Your task to perform on an android device: Clear the shopping cart on bestbuy. Add dell alienware to the cart on bestbuy, then select checkout. Image 0: 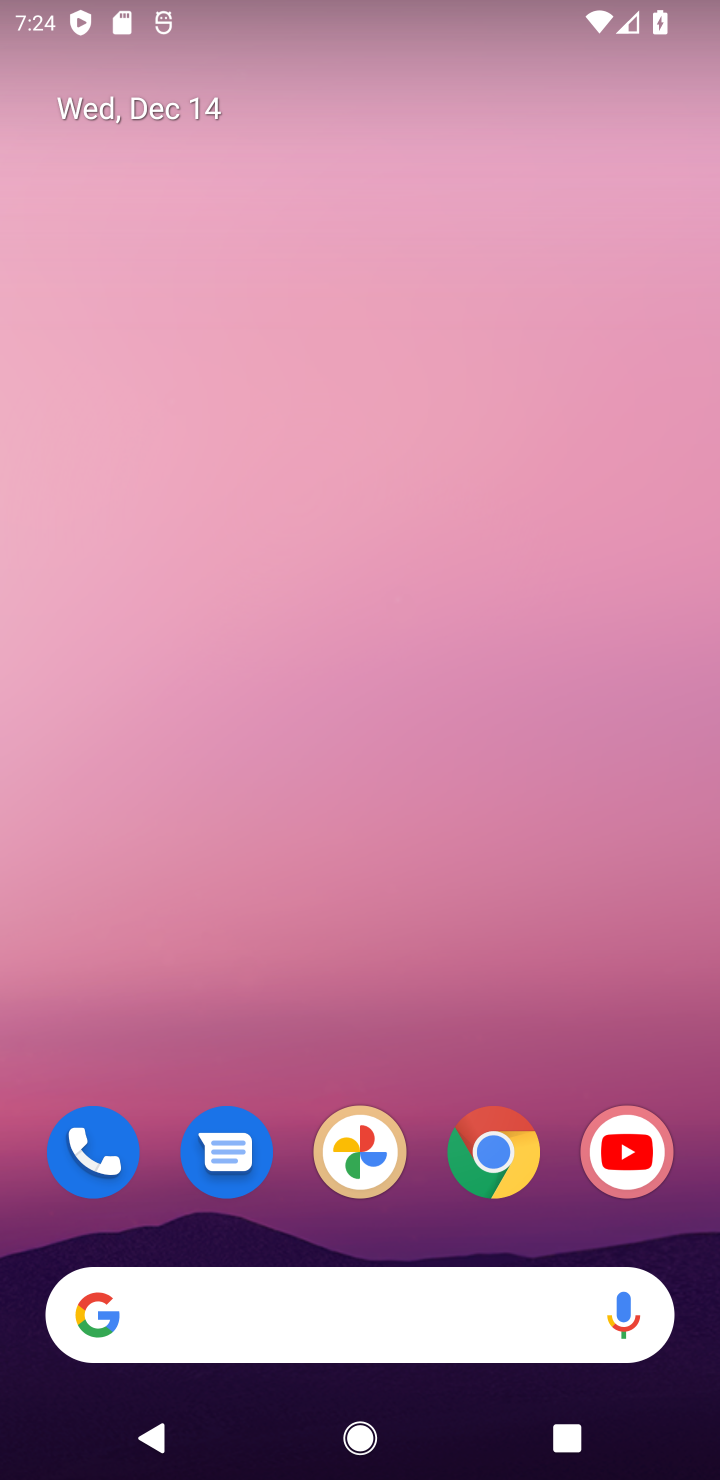
Step 0: click (511, 1163)
Your task to perform on an android device: Clear the shopping cart on bestbuy. Add dell alienware to the cart on bestbuy, then select checkout. Image 1: 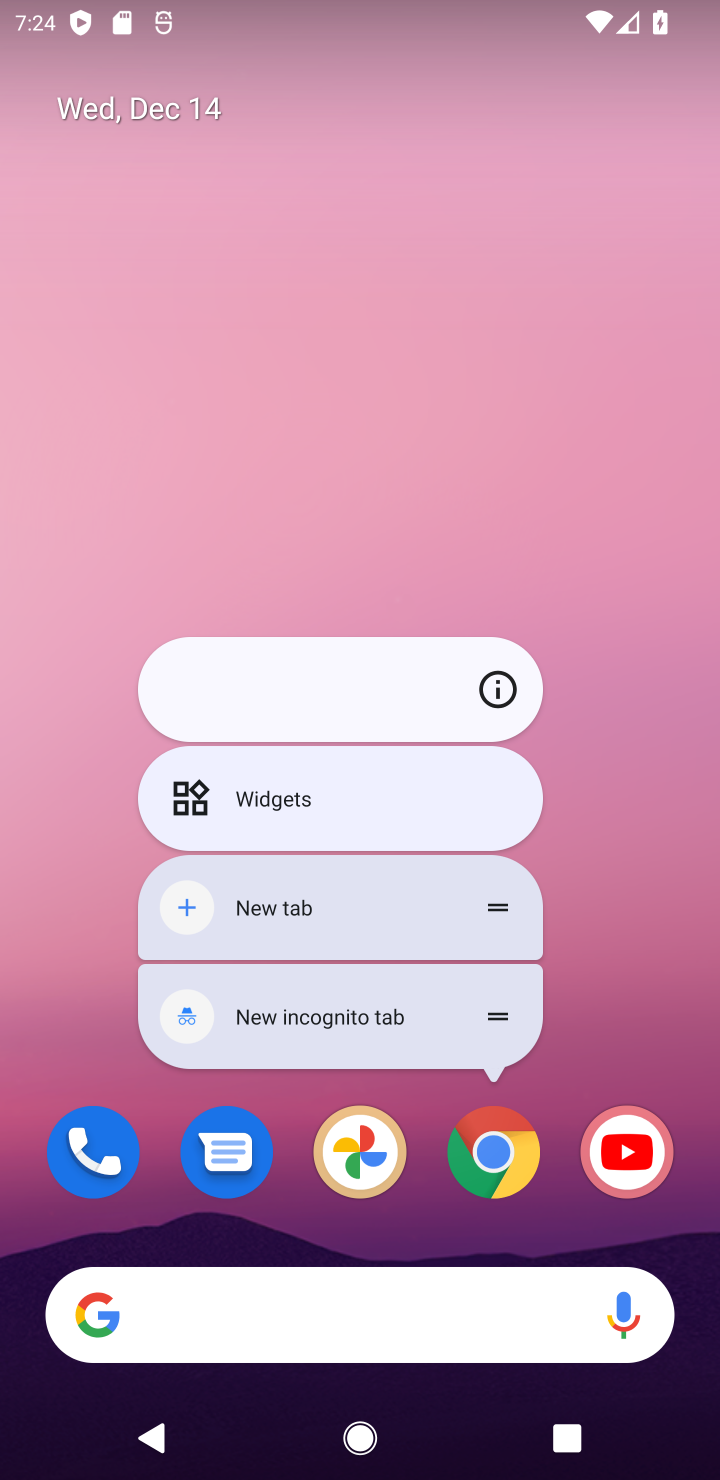
Step 1: click (511, 1163)
Your task to perform on an android device: Clear the shopping cart on bestbuy. Add dell alienware to the cart on bestbuy, then select checkout. Image 2: 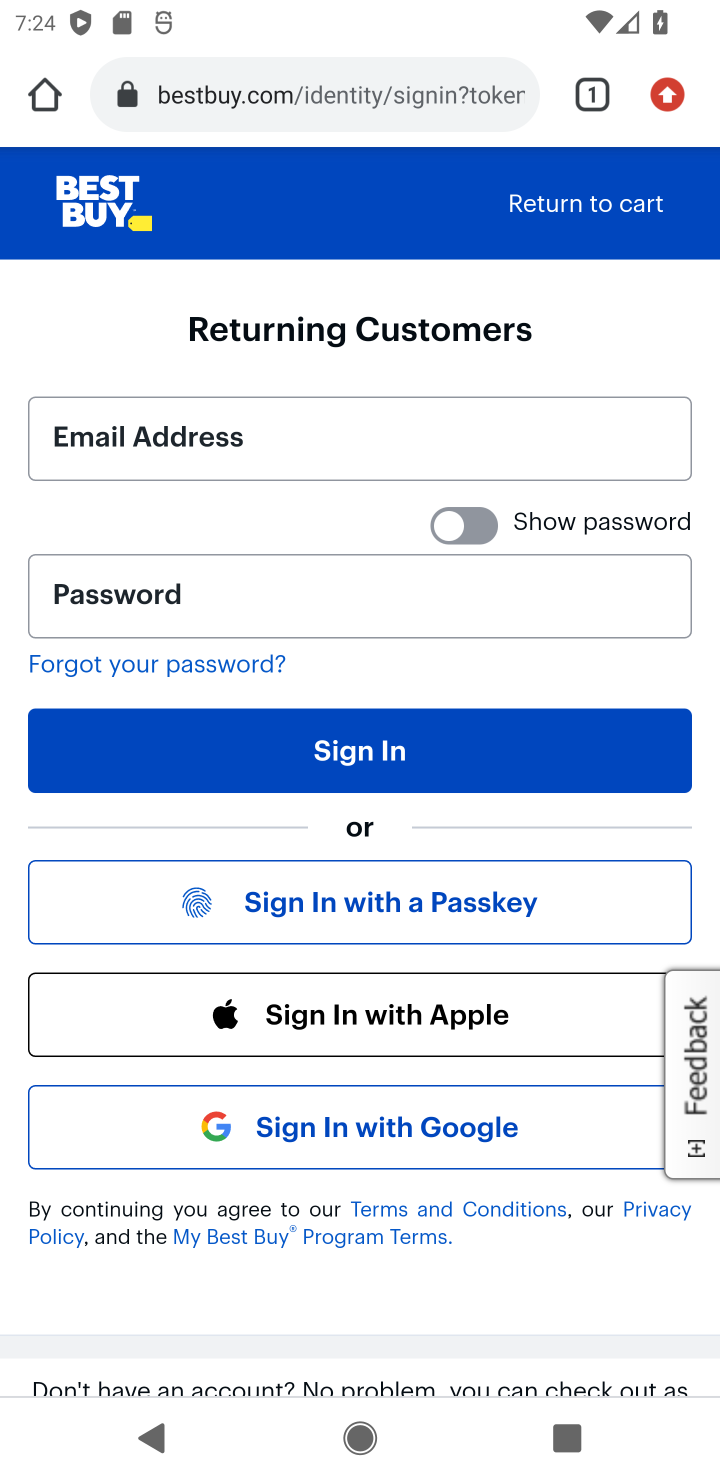
Step 2: click (591, 206)
Your task to perform on an android device: Clear the shopping cart on bestbuy. Add dell alienware to the cart on bestbuy, then select checkout. Image 3: 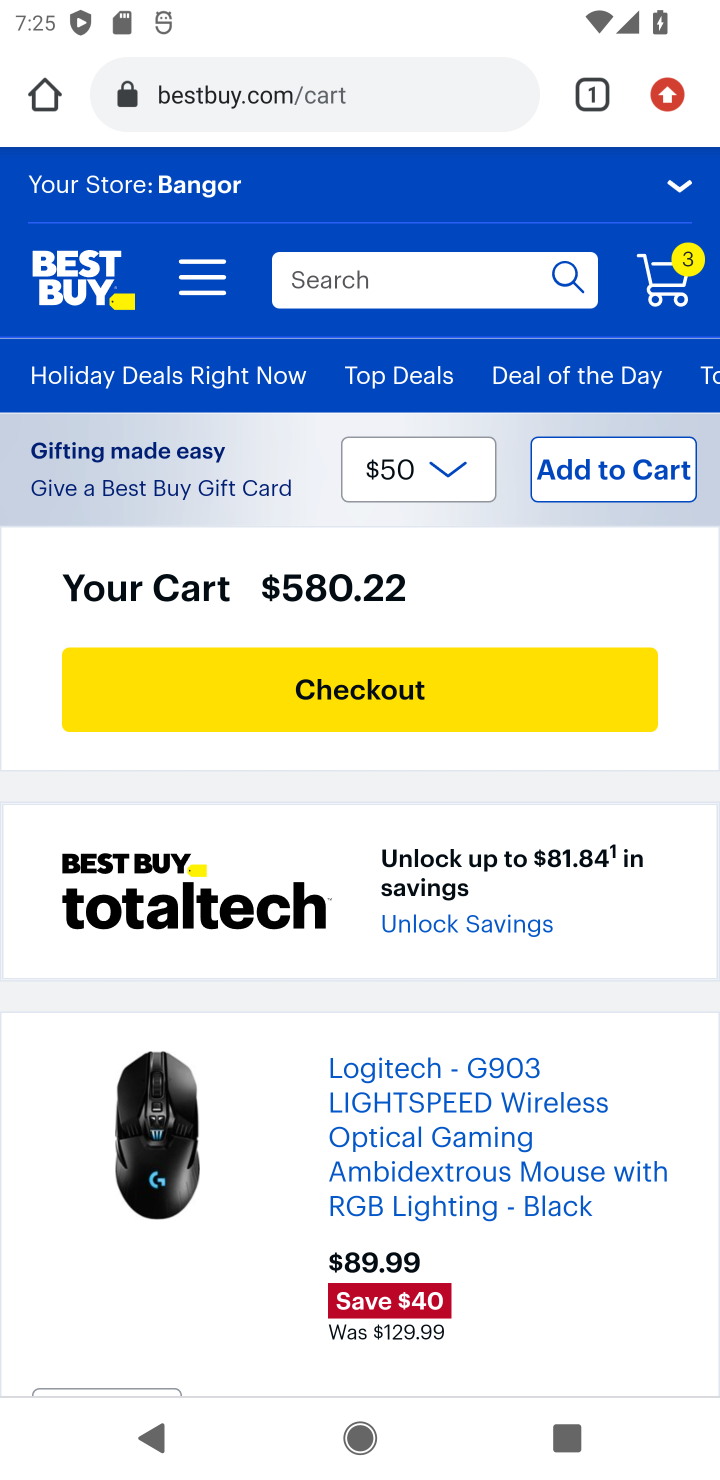
Step 3: drag from (319, 1009) to (285, 520)
Your task to perform on an android device: Clear the shopping cart on bestbuy. Add dell alienware to the cart on bestbuy, then select checkout. Image 4: 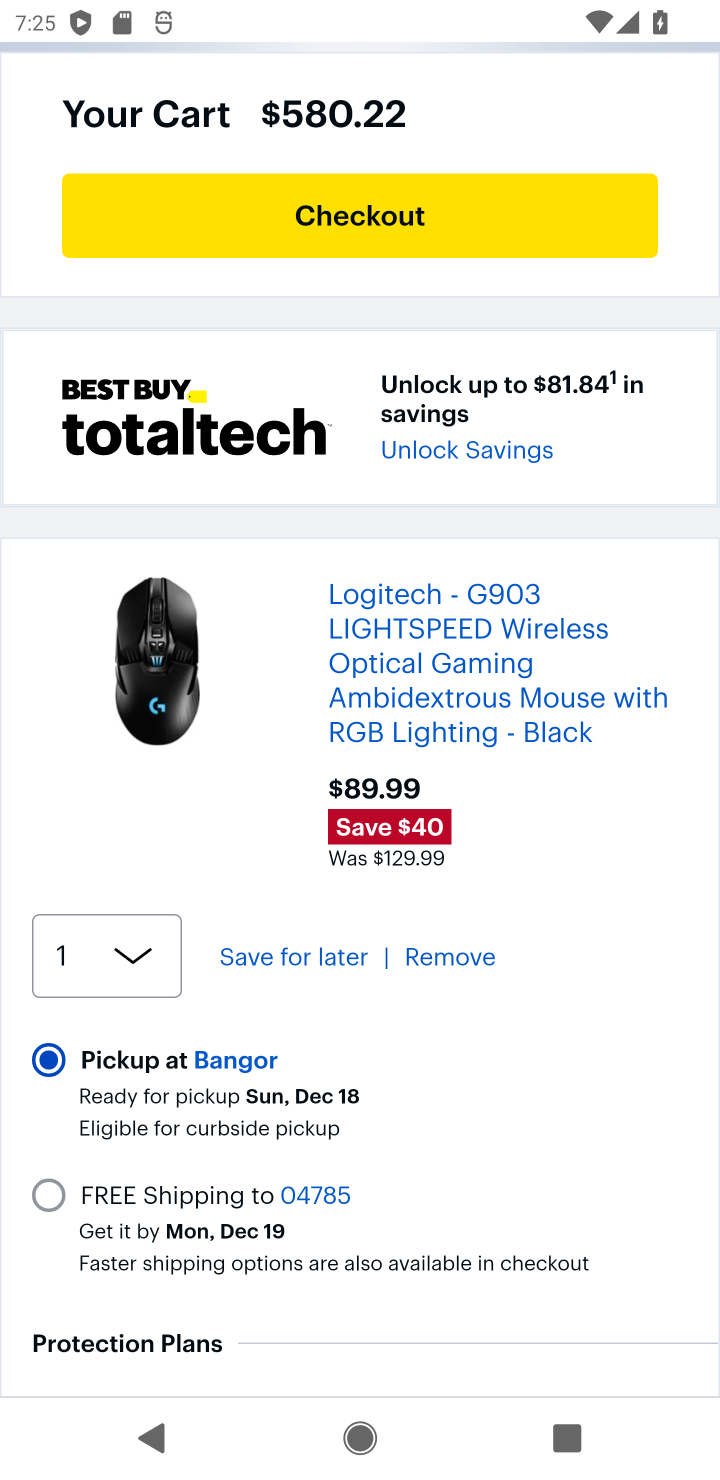
Step 4: click (458, 955)
Your task to perform on an android device: Clear the shopping cart on bestbuy. Add dell alienware to the cart on bestbuy, then select checkout. Image 5: 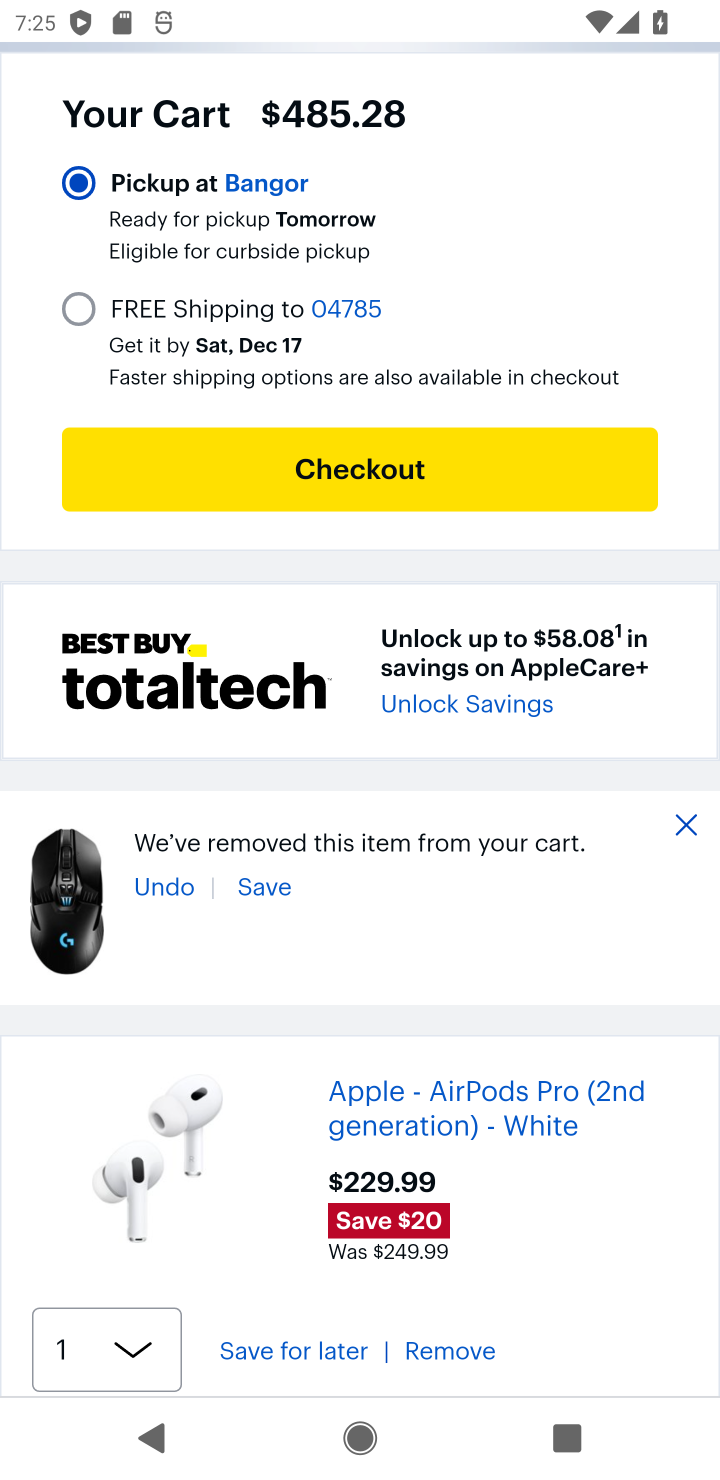
Step 5: click (463, 1363)
Your task to perform on an android device: Clear the shopping cart on bestbuy. Add dell alienware to the cart on bestbuy, then select checkout. Image 6: 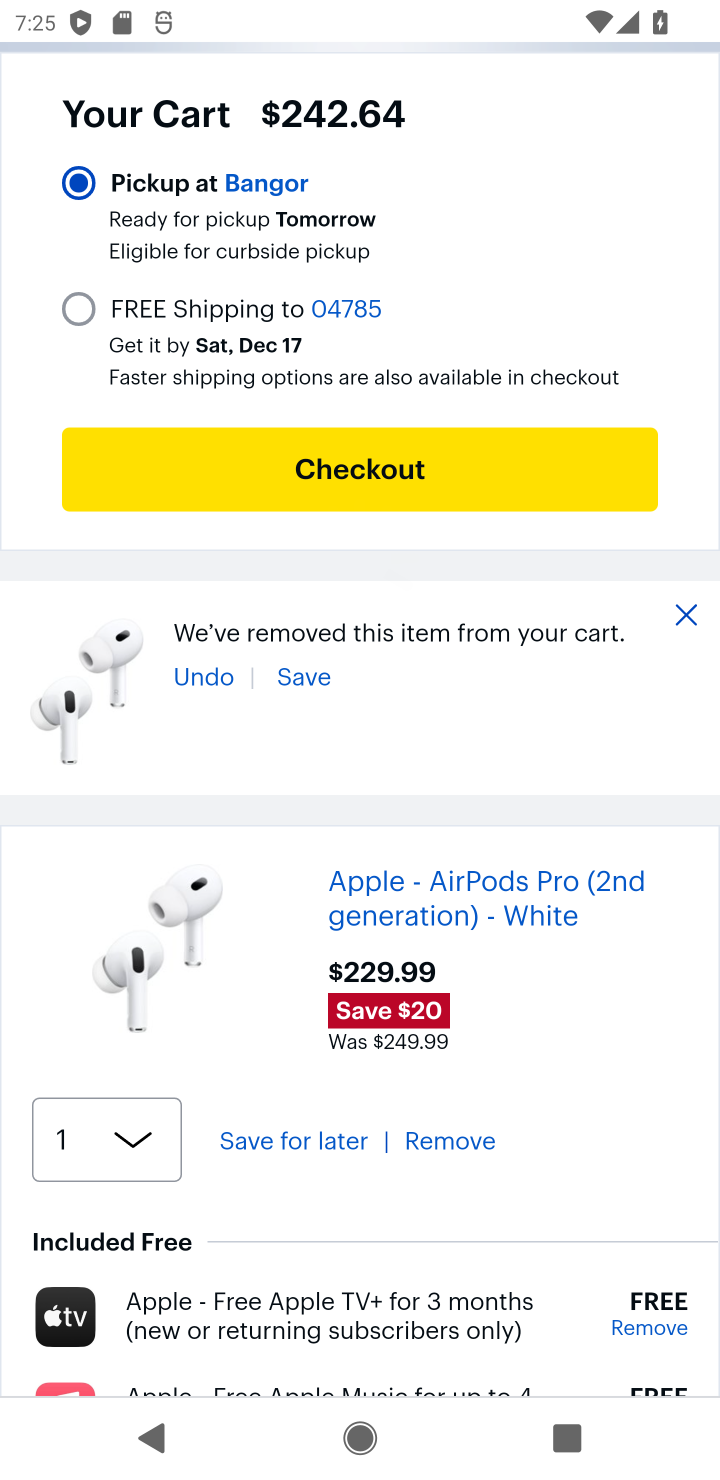
Step 6: click (462, 1146)
Your task to perform on an android device: Clear the shopping cart on bestbuy. Add dell alienware to the cart on bestbuy, then select checkout. Image 7: 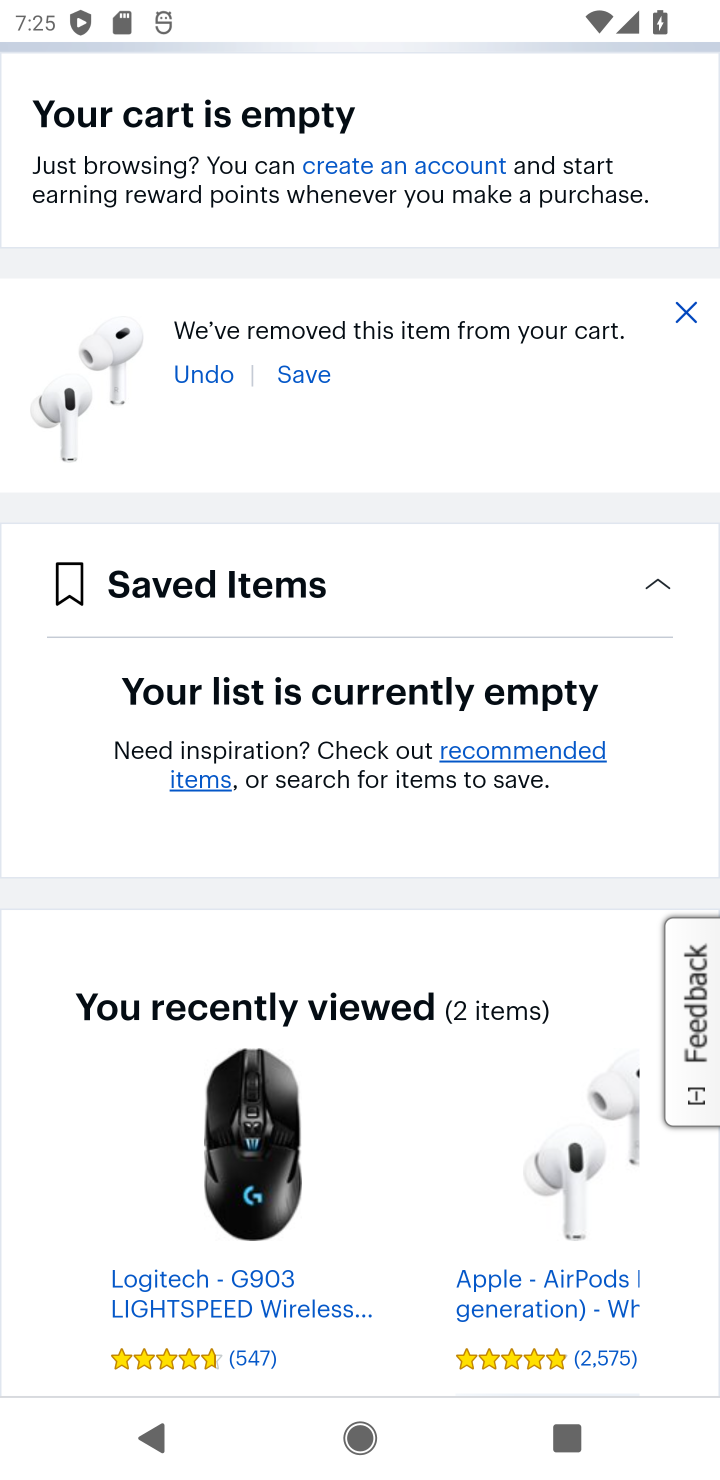
Step 7: drag from (376, 387) to (432, 915)
Your task to perform on an android device: Clear the shopping cart on bestbuy. Add dell alienware to the cart on bestbuy, then select checkout. Image 8: 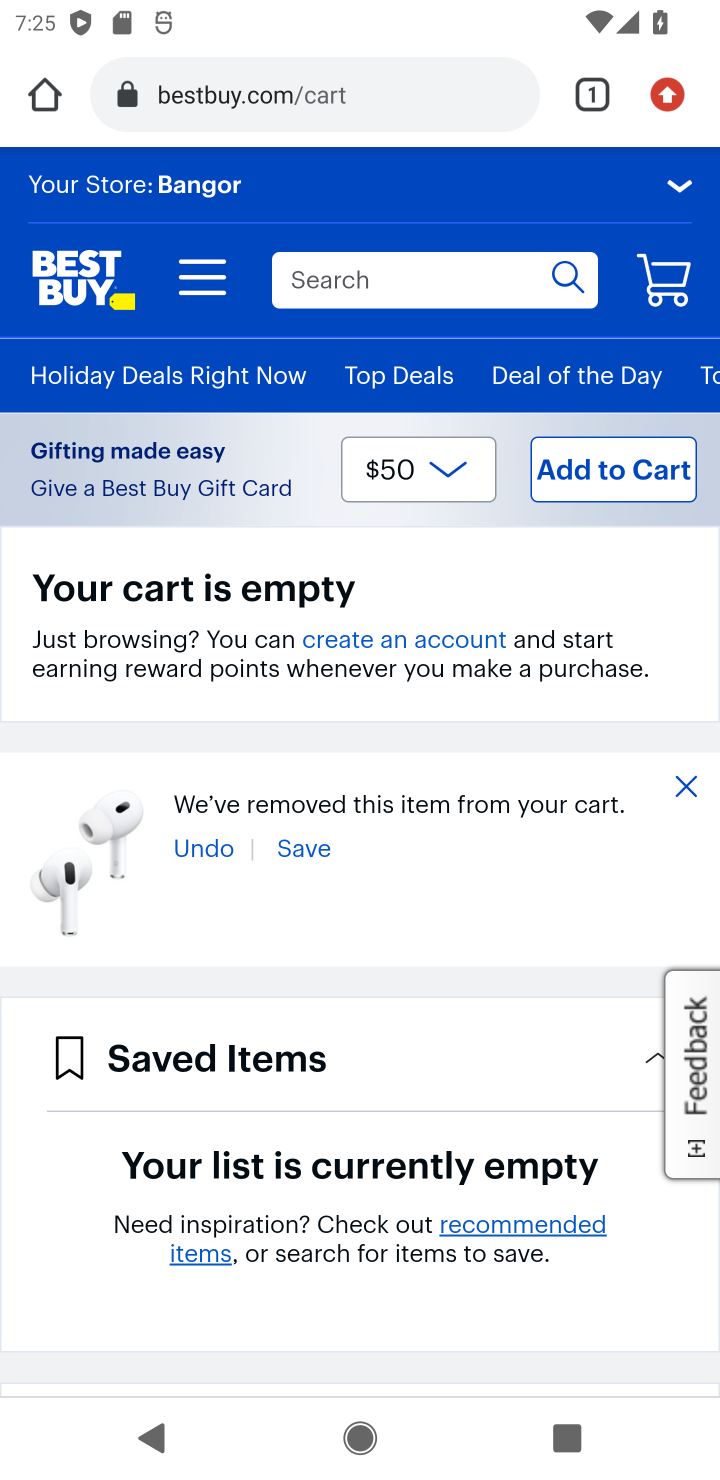
Step 8: click (315, 292)
Your task to perform on an android device: Clear the shopping cart on bestbuy. Add dell alienware to the cart on bestbuy, then select checkout. Image 9: 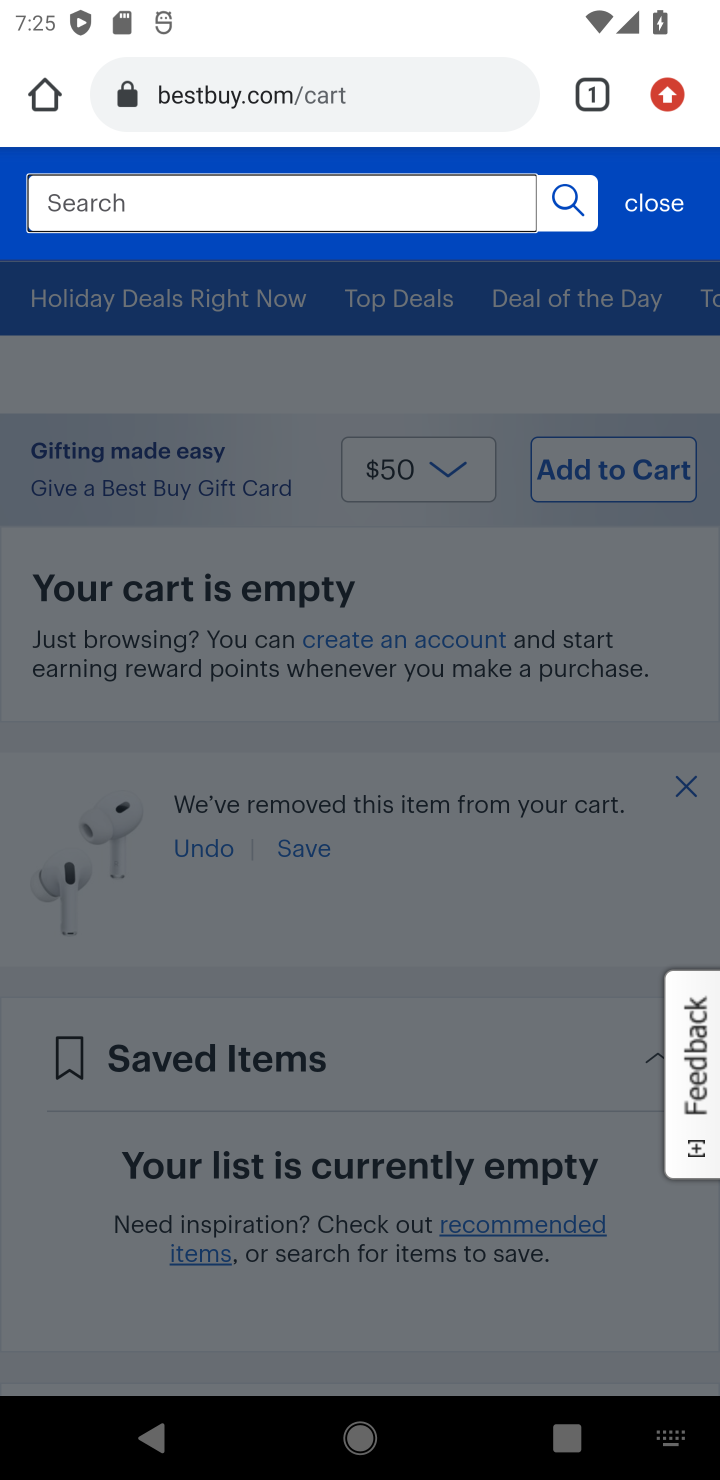
Step 9: type "dell alienware"
Your task to perform on an android device: Clear the shopping cart on bestbuy. Add dell alienware to the cart on bestbuy, then select checkout. Image 10: 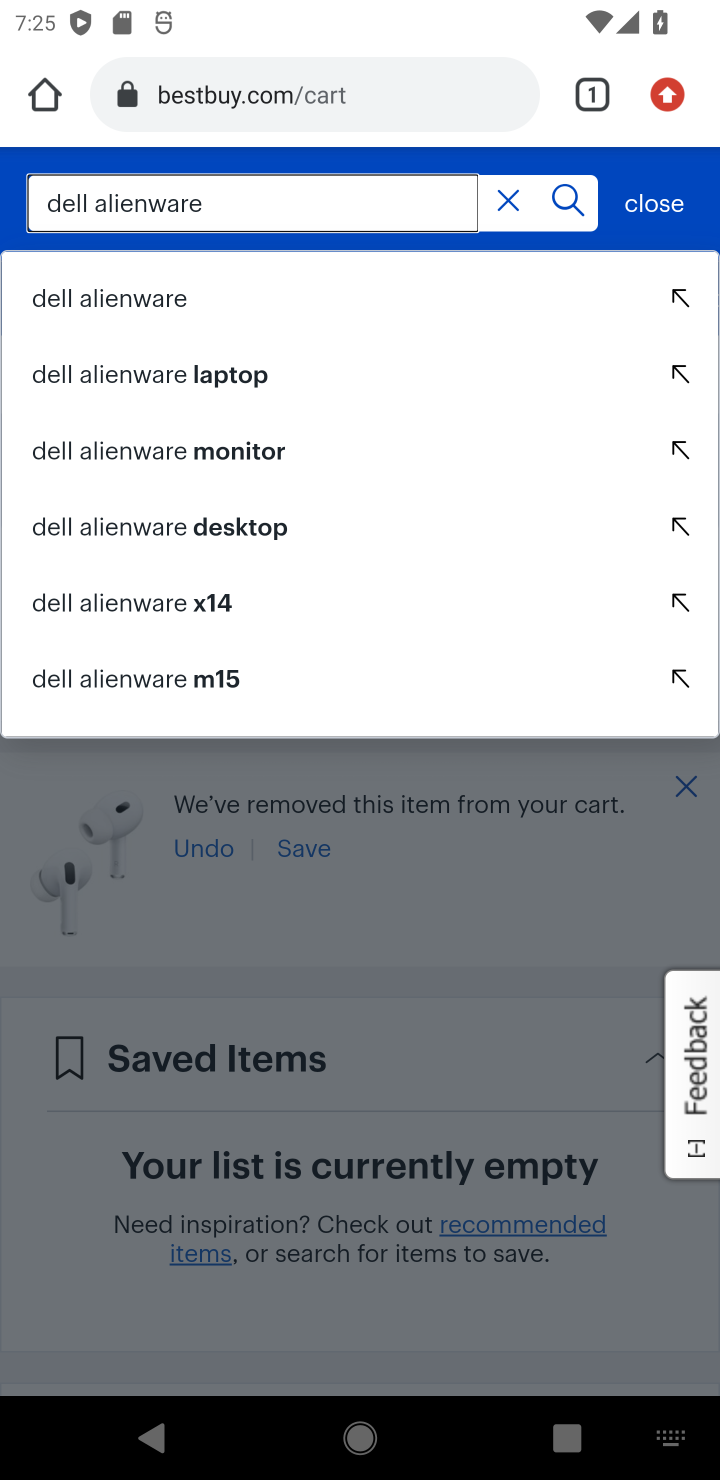
Step 10: click (147, 308)
Your task to perform on an android device: Clear the shopping cart on bestbuy. Add dell alienware to the cart on bestbuy, then select checkout. Image 11: 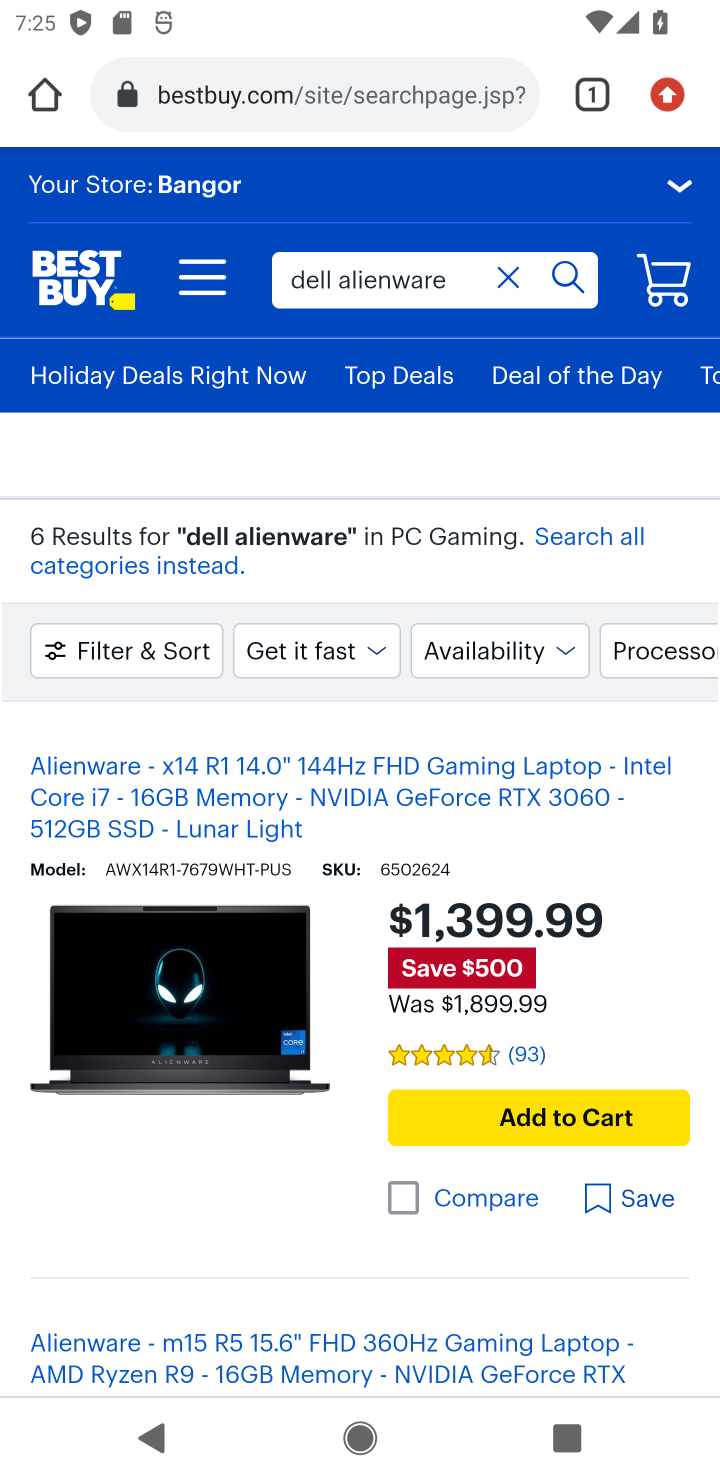
Step 11: click (163, 1022)
Your task to perform on an android device: Clear the shopping cart on bestbuy. Add dell alienware to the cart on bestbuy, then select checkout. Image 12: 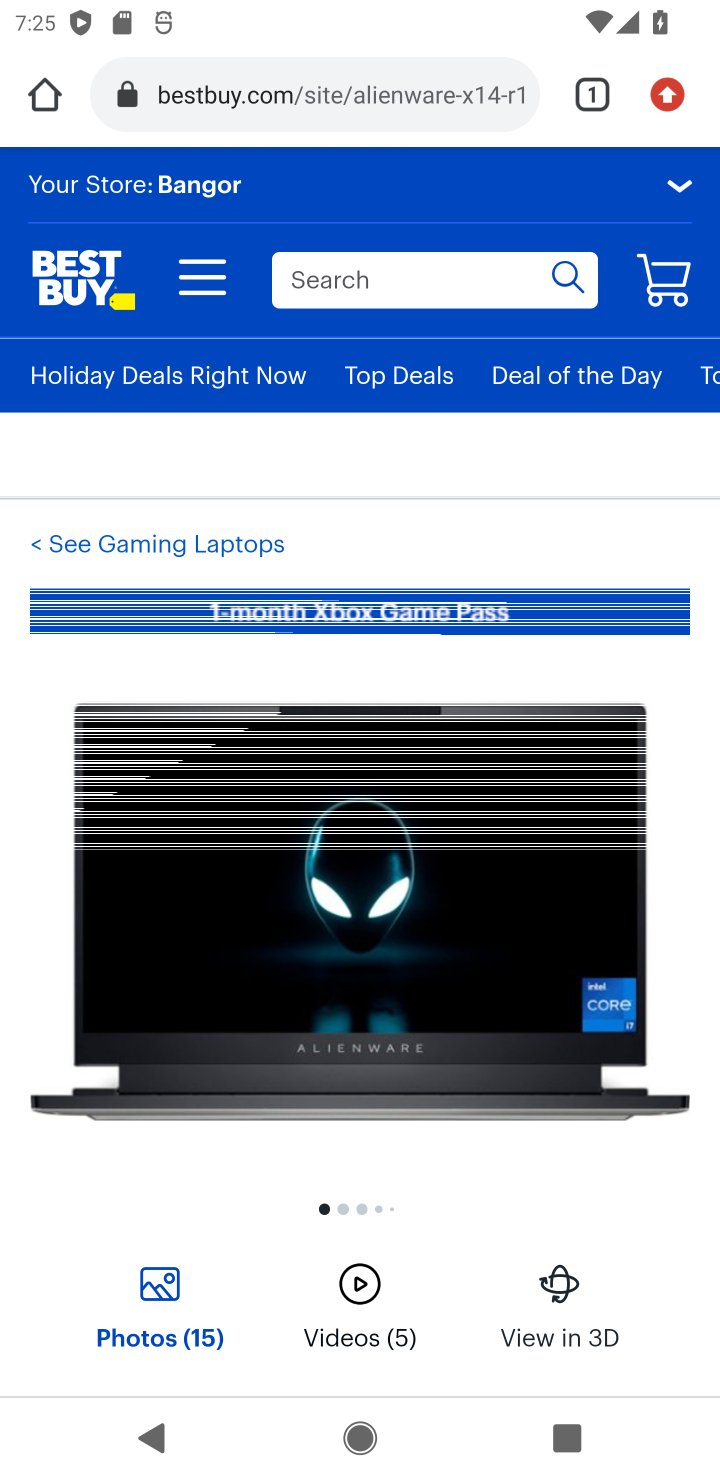
Step 12: drag from (252, 1131) to (221, 547)
Your task to perform on an android device: Clear the shopping cart on bestbuy. Add dell alienware to the cart on bestbuy, then select checkout. Image 13: 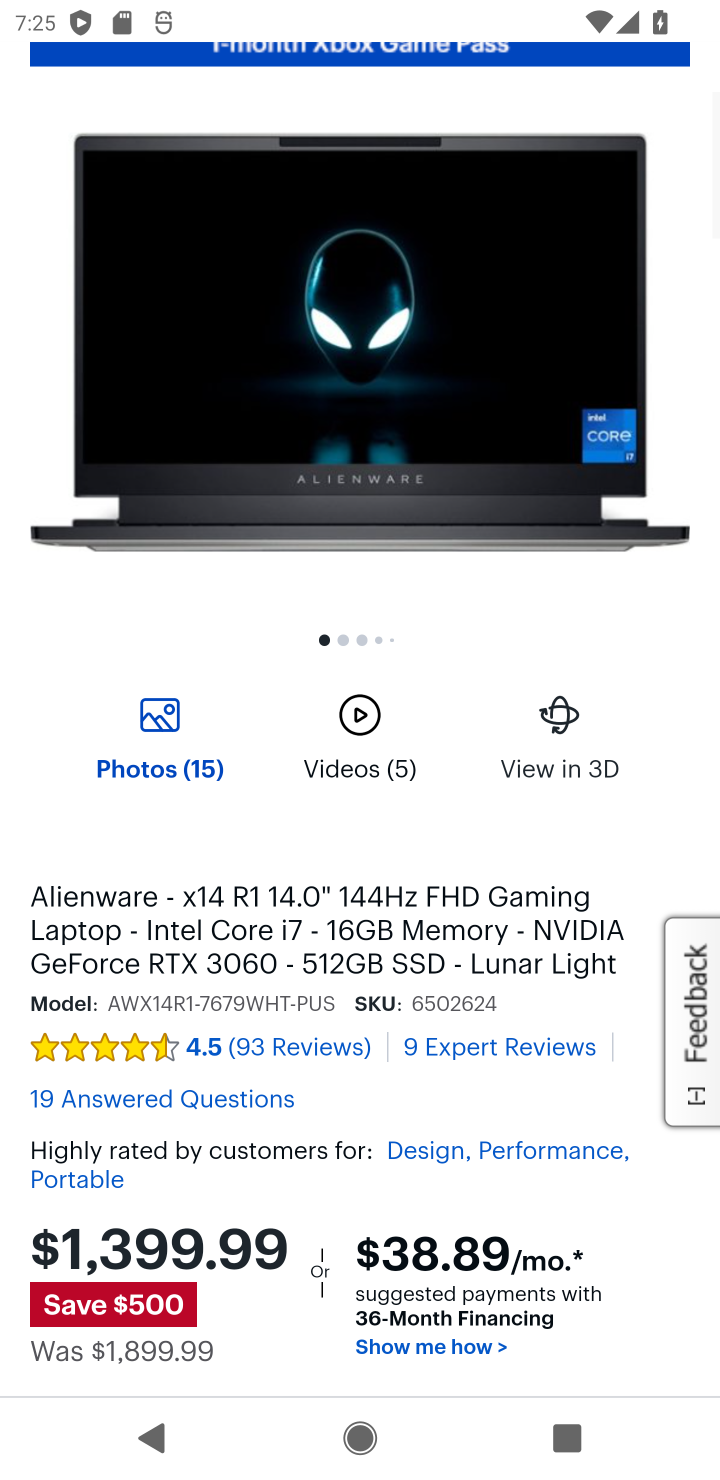
Step 13: drag from (343, 1060) to (339, 341)
Your task to perform on an android device: Clear the shopping cart on bestbuy. Add dell alienware to the cart on bestbuy, then select checkout. Image 14: 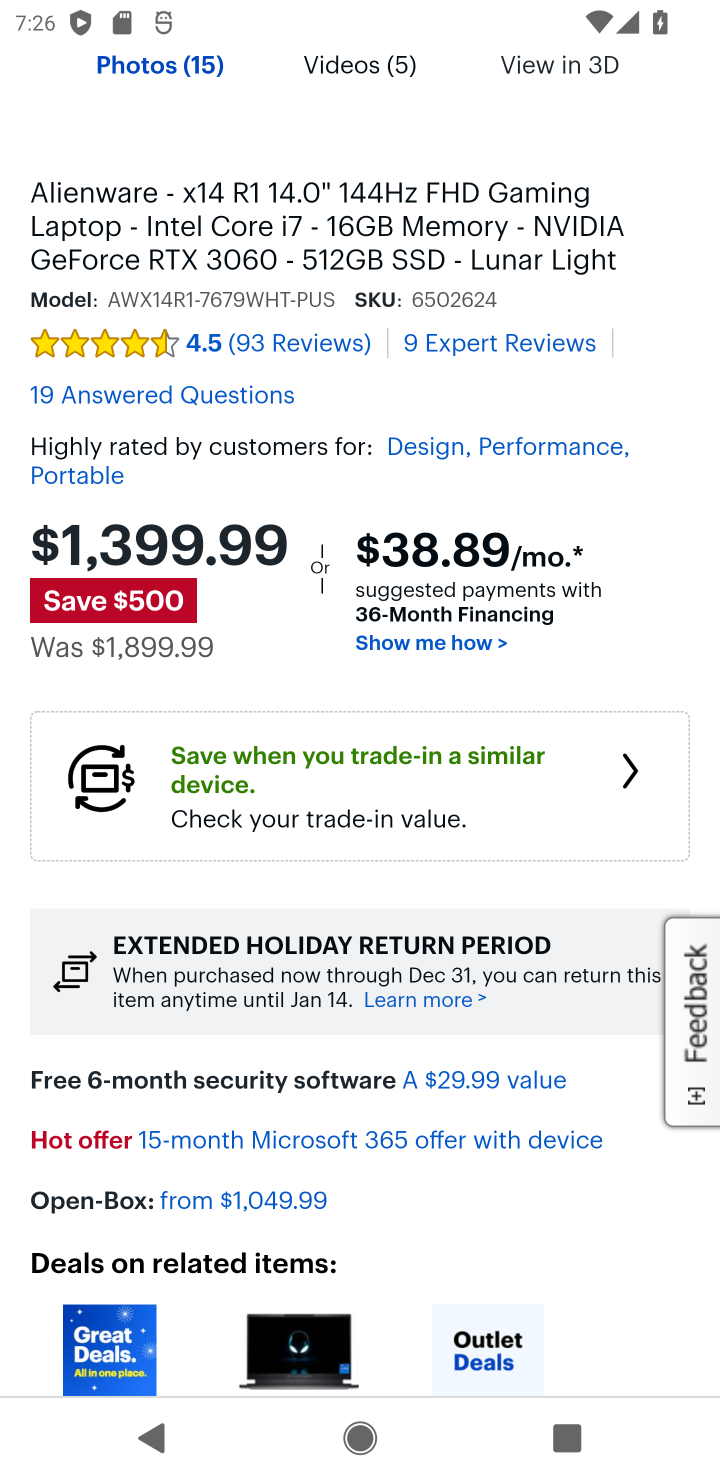
Step 14: drag from (374, 1219) to (395, 530)
Your task to perform on an android device: Clear the shopping cart on bestbuy. Add dell alienware to the cart on bestbuy, then select checkout. Image 15: 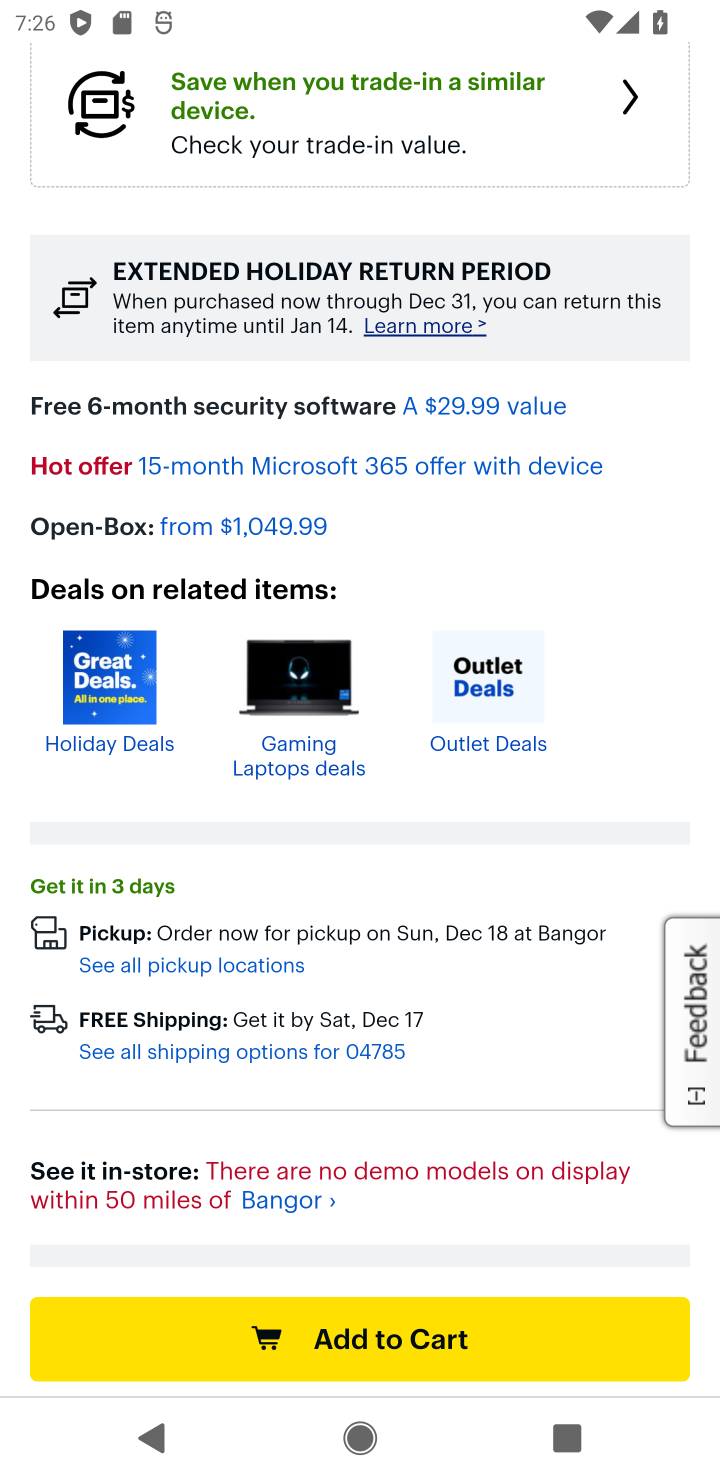
Step 15: click (344, 1321)
Your task to perform on an android device: Clear the shopping cart on bestbuy. Add dell alienware to the cart on bestbuy, then select checkout. Image 16: 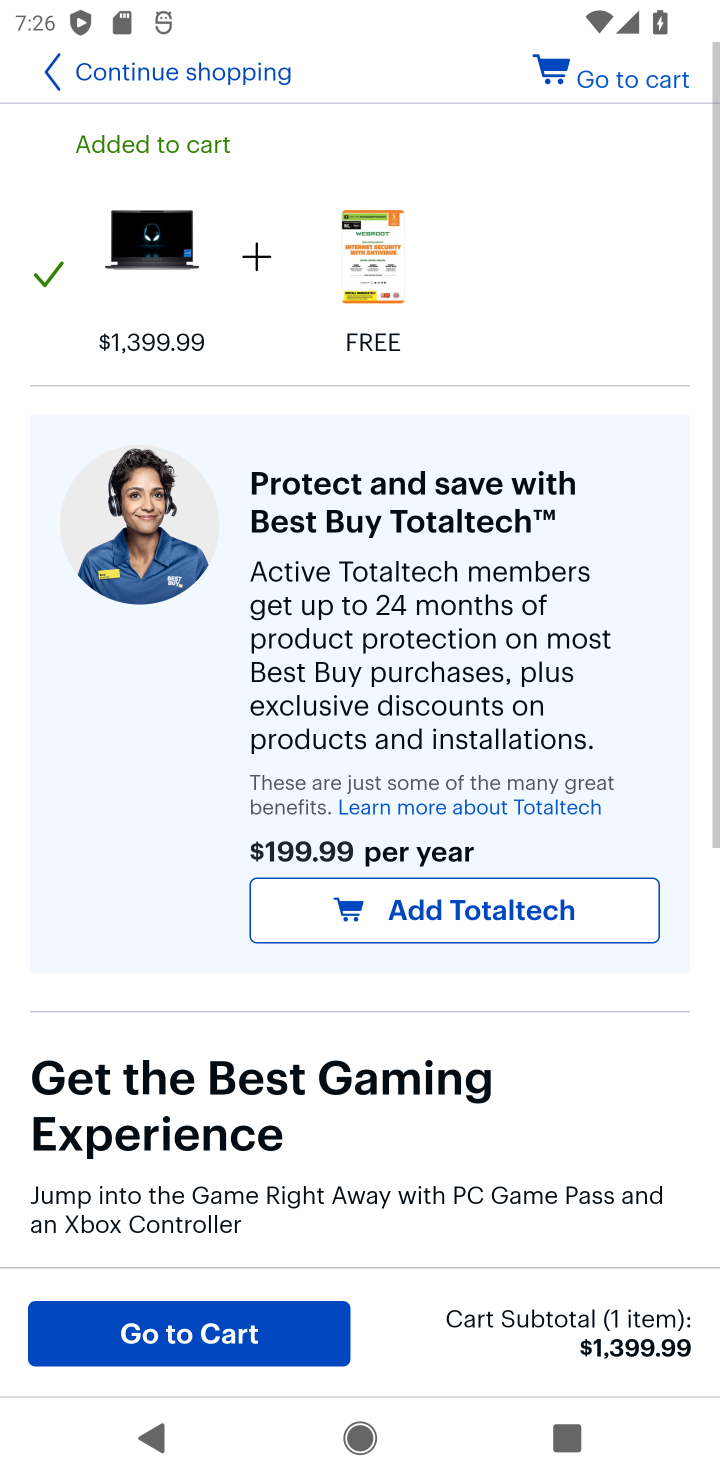
Step 16: click (608, 79)
Your task to perform on an android device: Clear the shopping cart on bestbuy. Add dell alienware to the cart on bestbuy, then select checkout. Image 17: 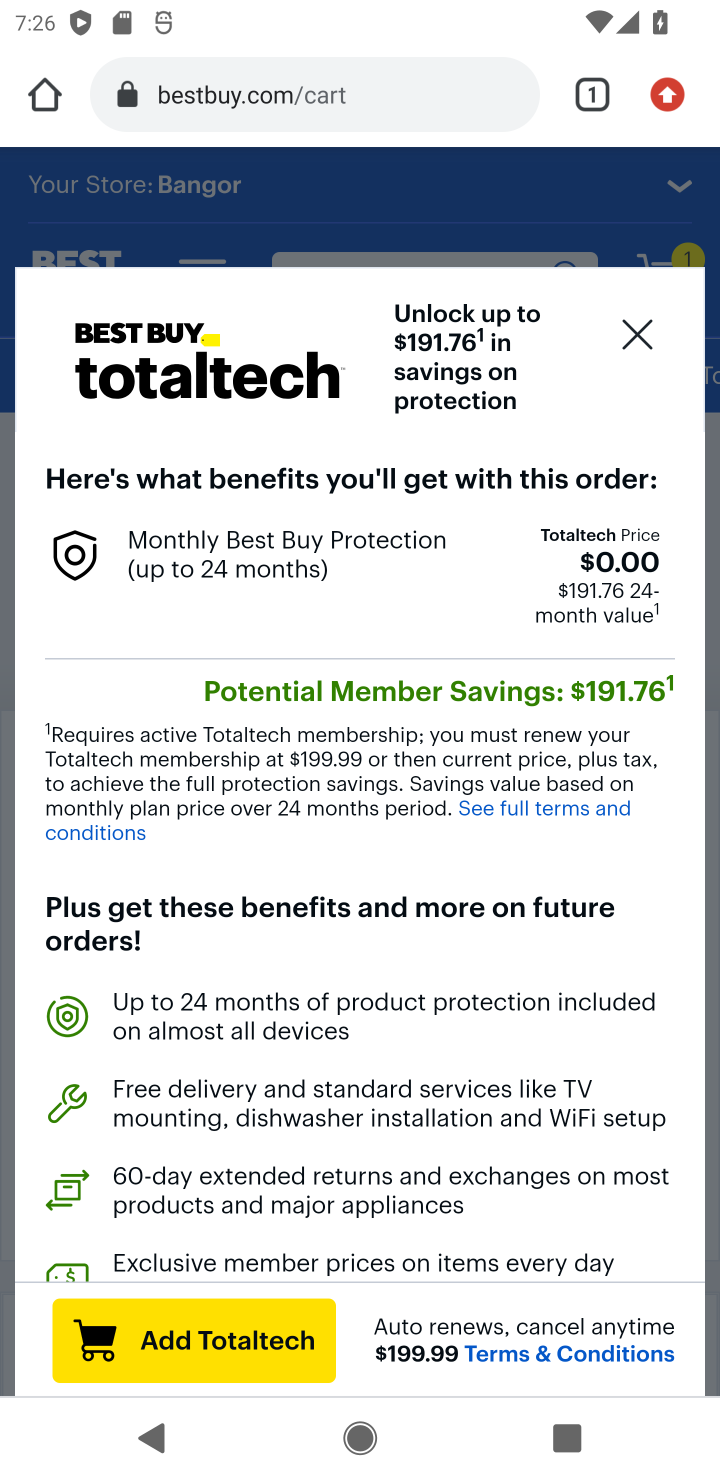
Step 17: click (325, 1184)
Your task to perform on an android device: Clear the shopping cart on bestbuy. Add dell alienware to the cart on bestbuy, then select checkout. Image 18: 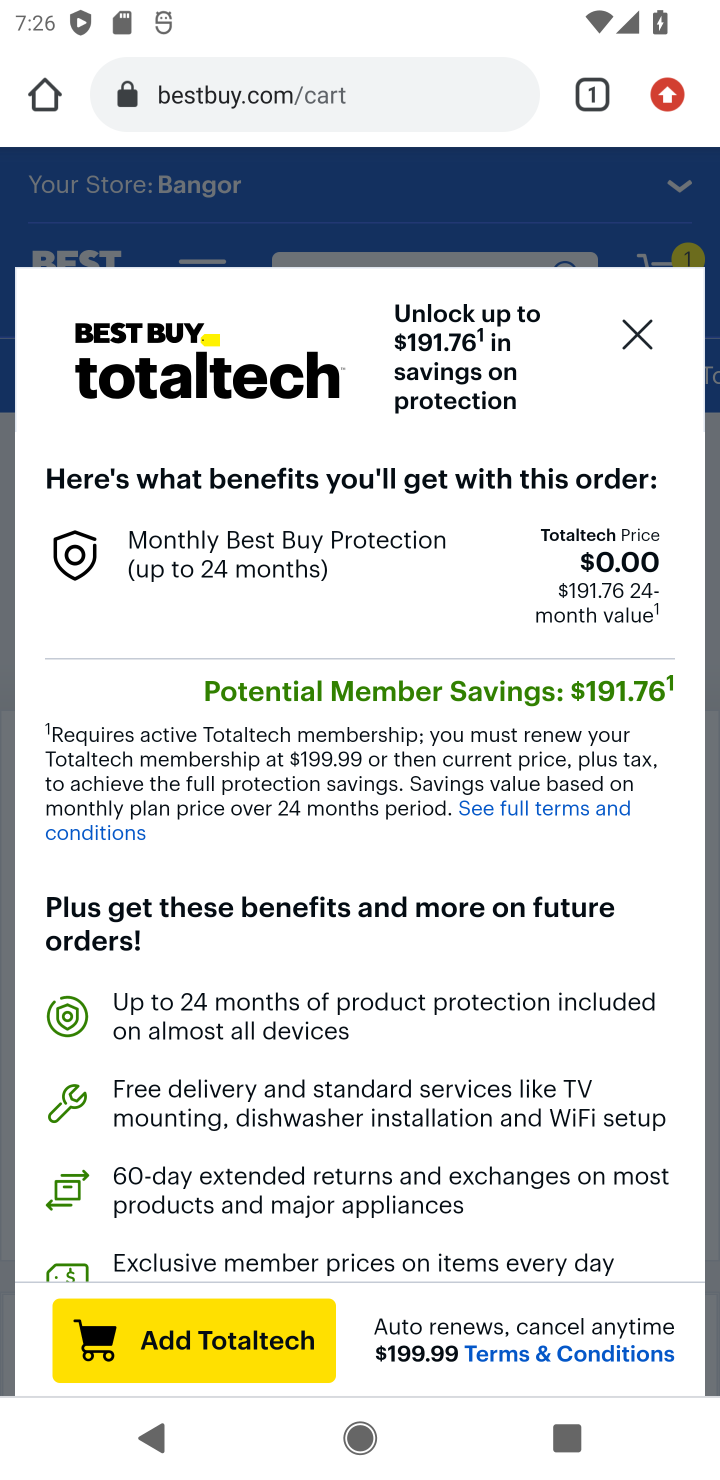
Step 18: click (647, 337)
Your task to perform on an android device: Clear the shopping cart on bestbuy. Add dell alienware to the cart on bestbuy, then select checkout. Image 19: 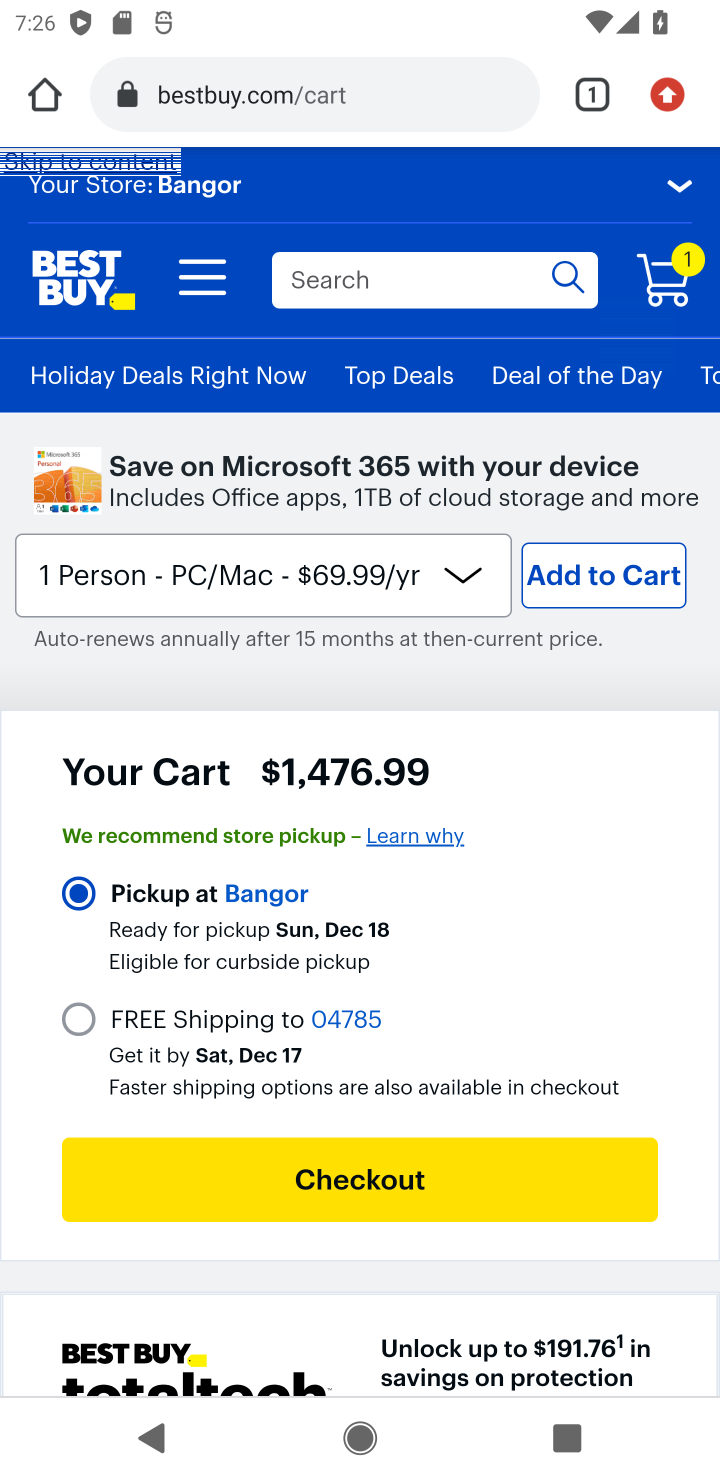
Step 19: click (326, 1170)
Your task to perform on an android device: Clear the shopping cart on bestbuy. Add dell alienware to the cart on bestbuy, then select checkout. Image 20: 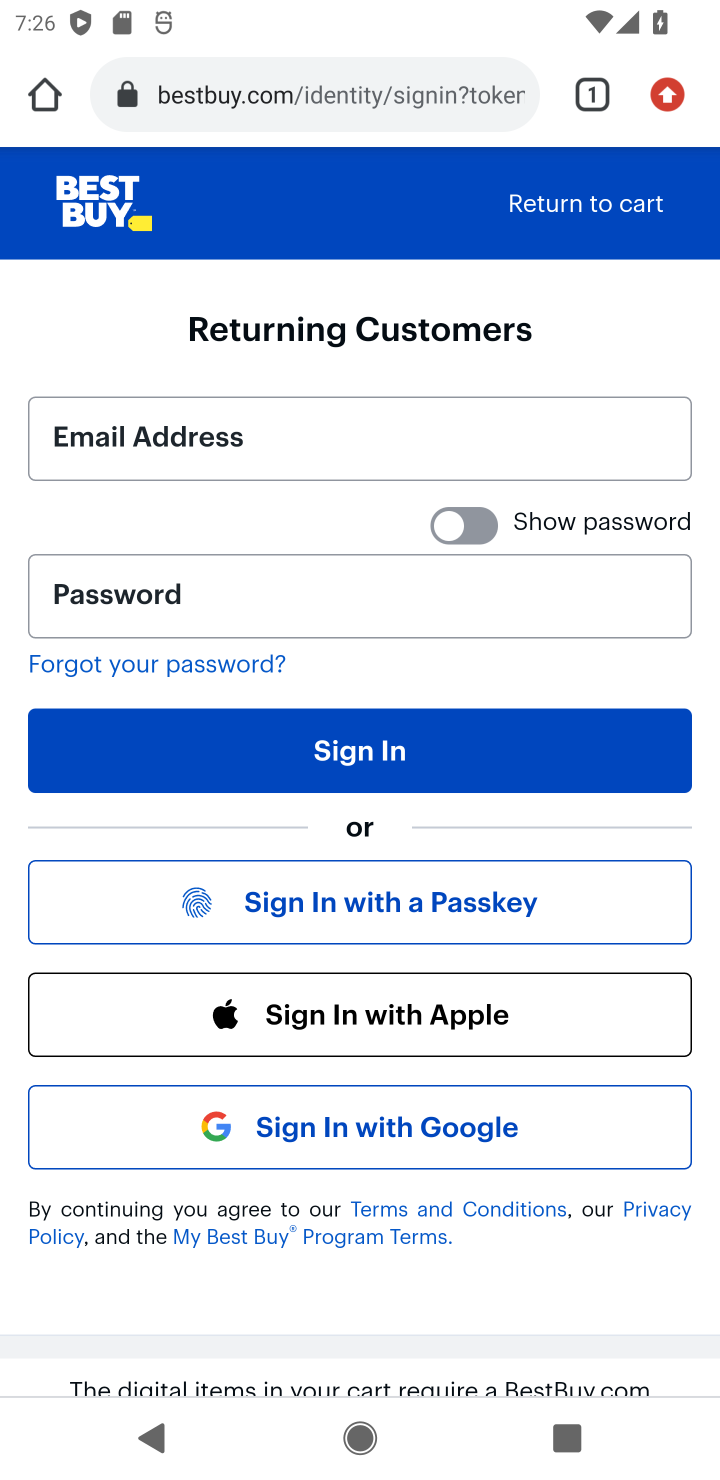
Step 20: task complete